Your task to perform on an android device: toggle sleep mode Image 0: 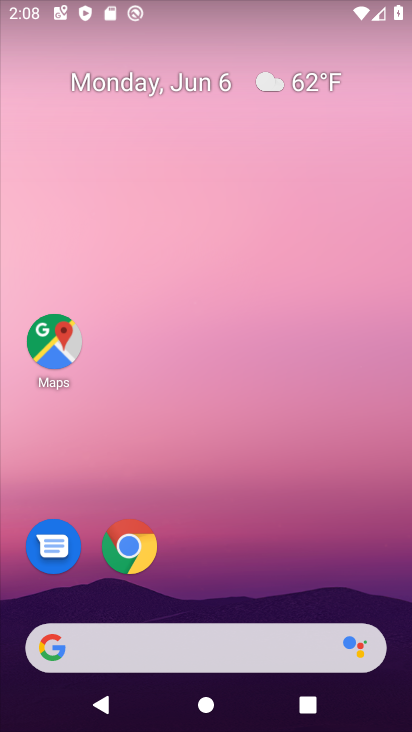
Step 0: drag from (195, 485) to (259, 111)
Your task to perform on an android device: toggle sleep mode Image 1: 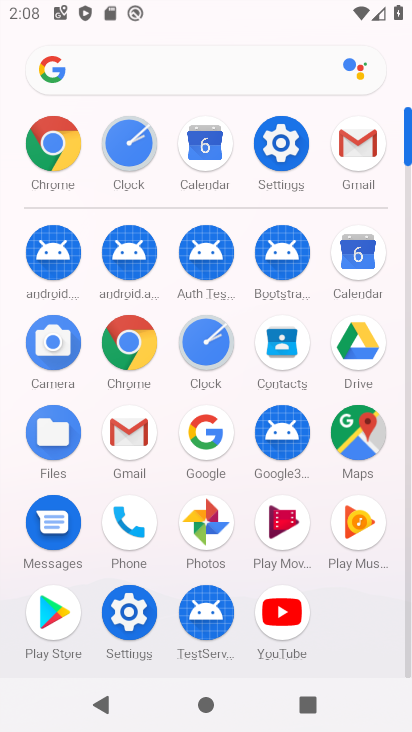
Step 1: click (286, 155)
Your task to perform on an android device: toggle sleep mode Image 2: 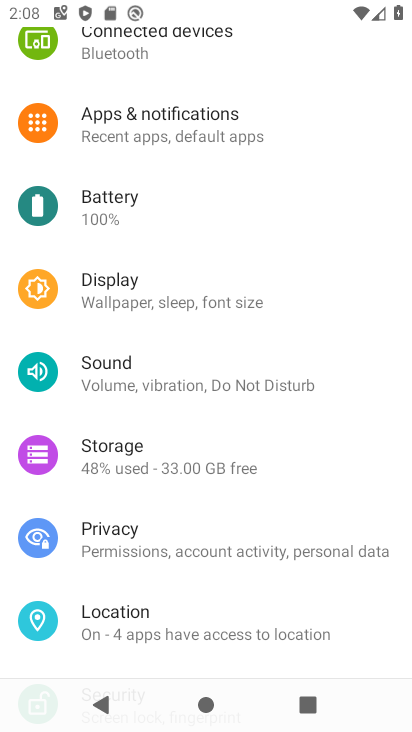
Step 2: drag from (143, 98) to (151, 415)
Your task to perform on an android device: toggle sleep mode Image 3: 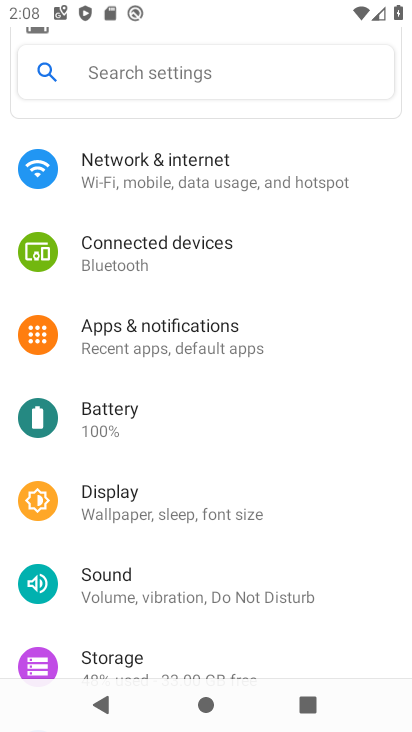
Step 3: click (132, 513)
Your task to perform on an android device: toggle sleep mode Image 4: 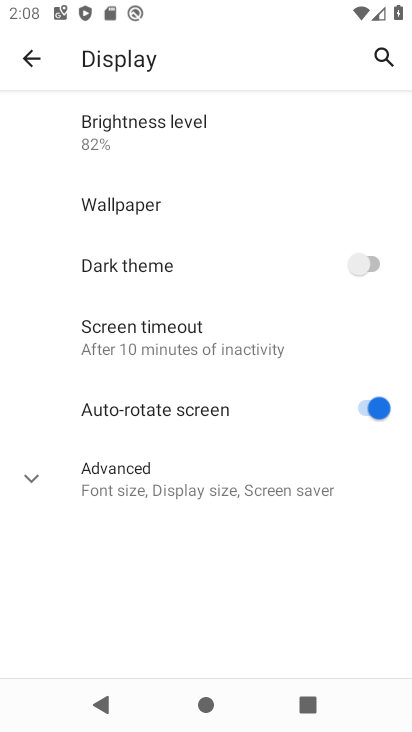
Step 4: click (158, 325)
Your task to perform on an android device: toggle sleep mode Image 5: 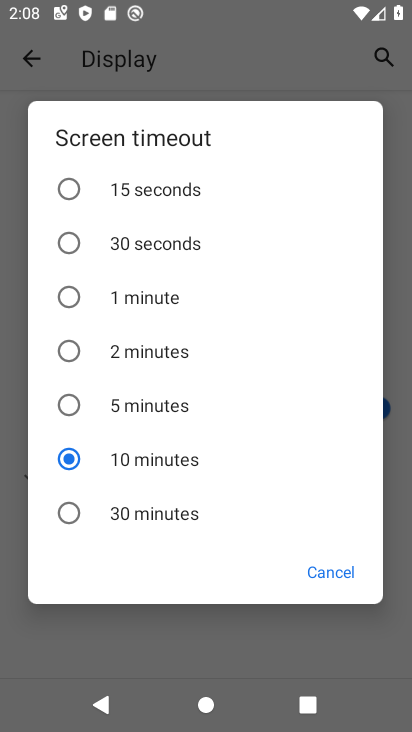
Step 5: click (149, 522)
Your task to perform on an android device: toggle sleep mode Image 6: 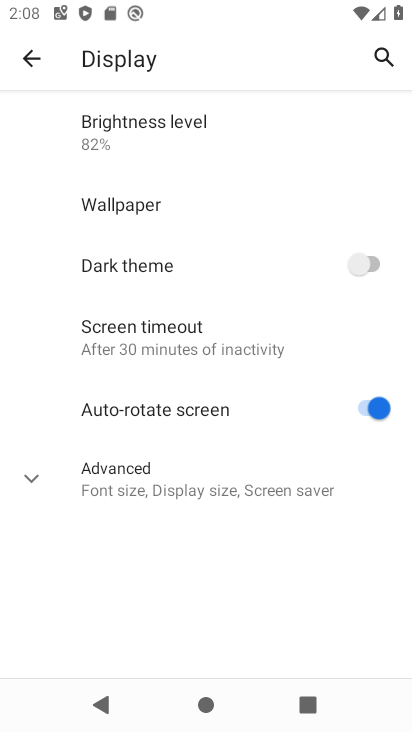
Step 6: task complete